Your task to perform on an android device: turn off notifications settings in the gmail app Image 0: 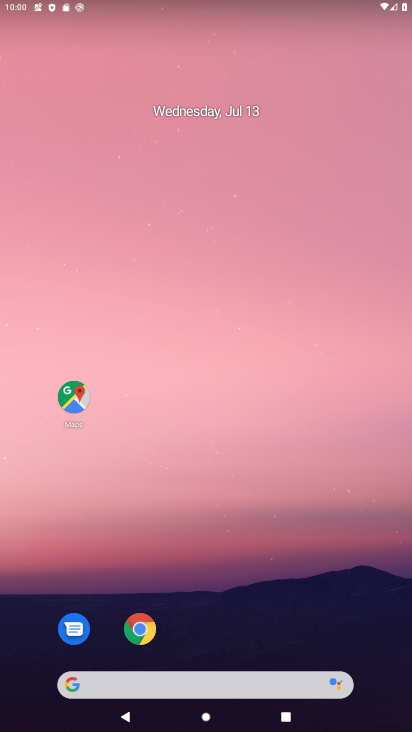
Step 0: click (226, 64)
Your task to perform on an android device: turn off notifications settings in the gmail app Image 1: 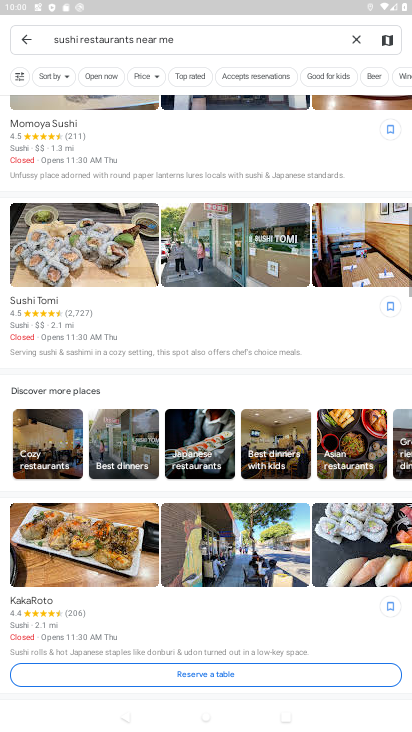
Step 1: press home button
Your task to perform on an android device: turn off notifications settings in the gmail app Image 2: 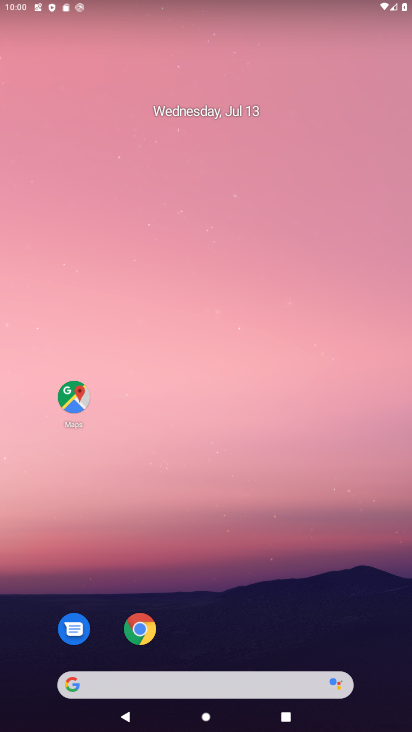
Step 2: drag from (210, 645) to (252, 0)
Your task to perform on an android device: turn off notifications settings in the gmail app Image 3: 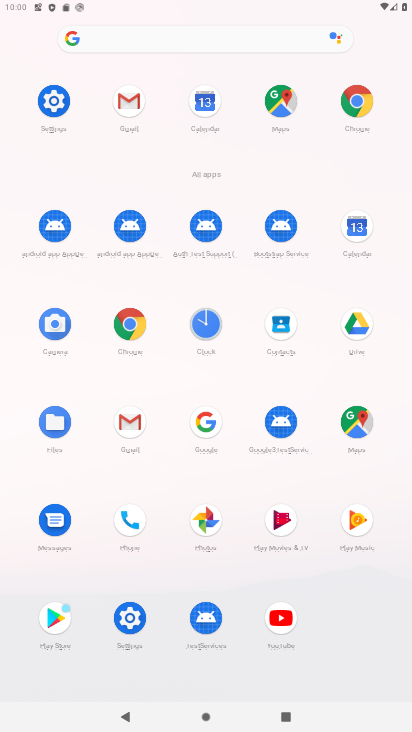
Step 3: click (125, 93)
Your task to perform on an android device: turn off notifications settings in the gmail app Image 4: 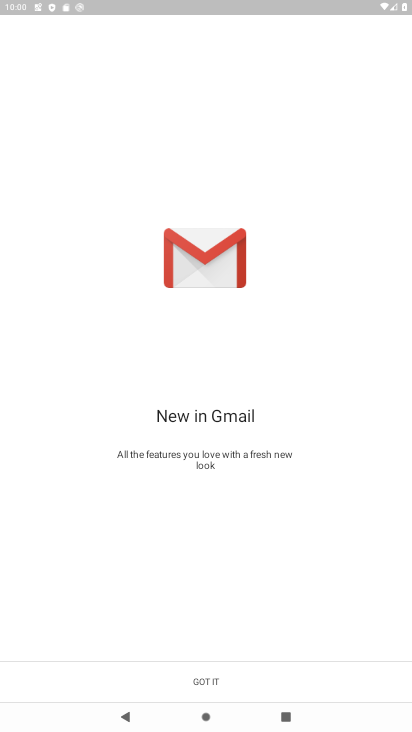
Step 4: click (208, 675)
Your task to perform on an android device: turn off notifications settings in the gmail app Image 5: 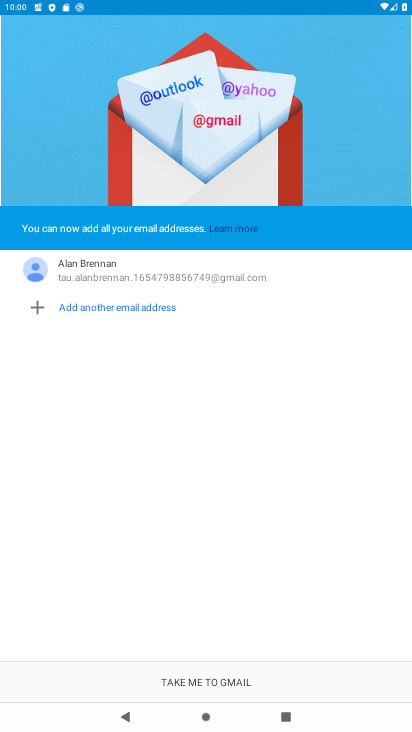
Step 5: click (206, 685)
Your task to perform on an android device: turn off notifications settings in the gmail app Image 6: 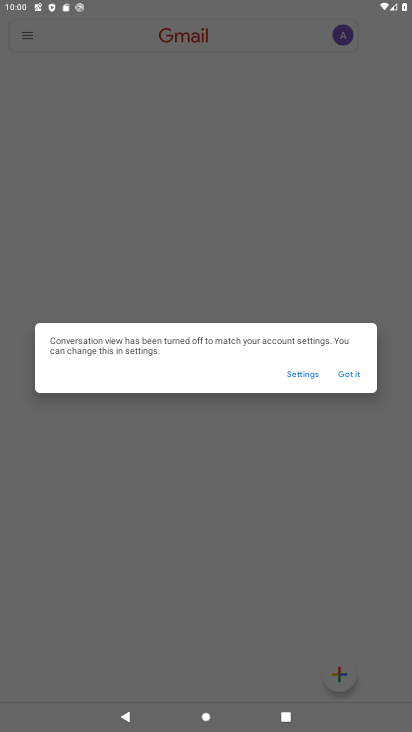
Step 6: click (353, 371)
Your task to perform on an android device: turn off notifications settings in the gmail app Image 7: 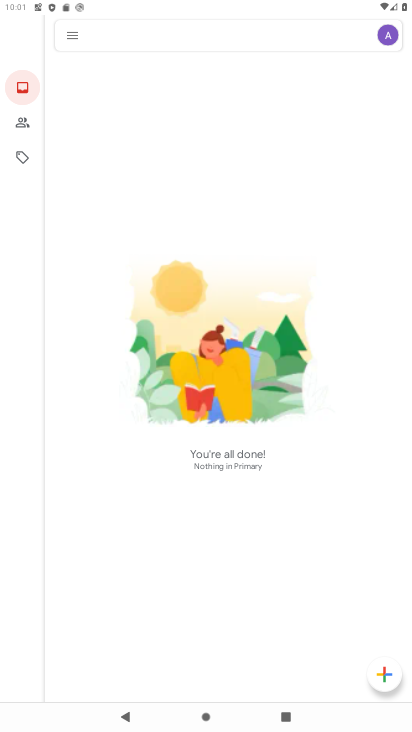
Step 7: click (71, 34)
Your task to perform on an android device: turn off notifications settings in the gmail app Image 8: 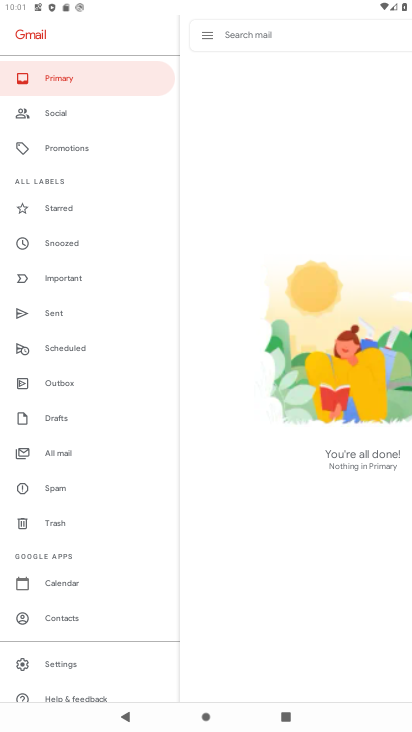
Step 8: click (83, 660)
Your task to perform on an android device: turn off notifications settings in the gmail app Image 9: 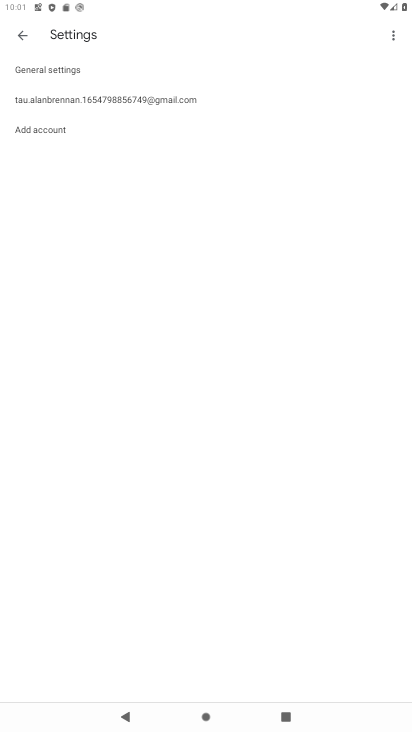
Step 9: click (90, 64)
Your task to perform on an android device: turn off notifications settings in the gmail app Image 10: 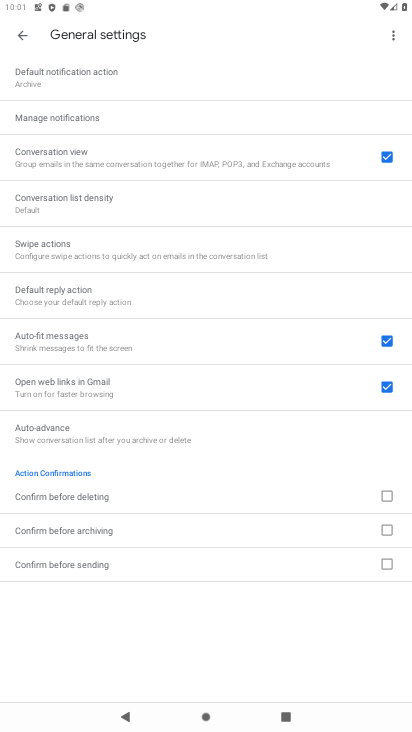
Step 10: click (115, 111)
Your task to perform on an android device: turn off notifications settings in the gmail app Image 11: 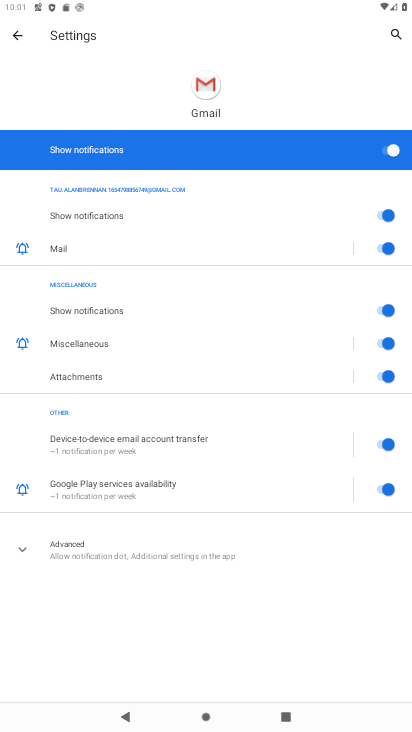
Step 11: click (385, 150)
Your task to perform on an android device: turn off notifications settings in the gmail app Image 12: 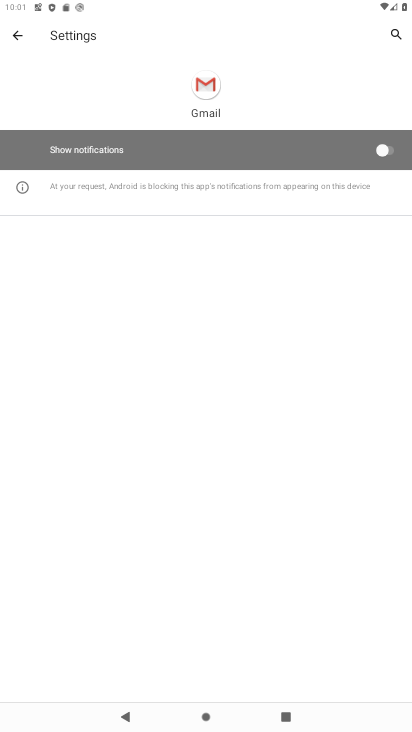
Step 12: task complete